Your task to perform on an android device: Go to network settings Image 0: 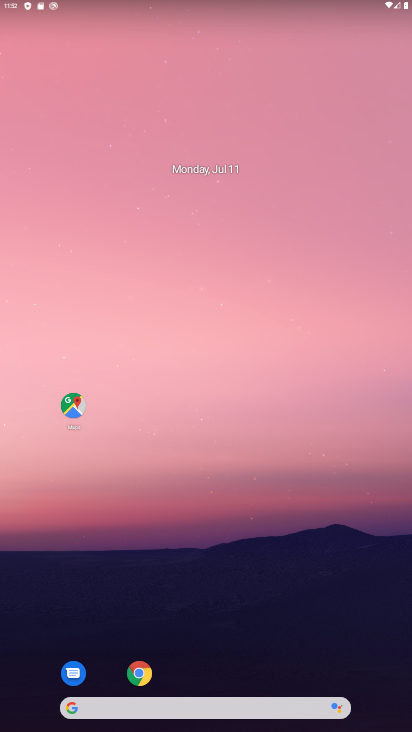
Step 0: drag from (277, 605) to (200, 141)
Your task to perform on an android device: Go to network settings Image 1: 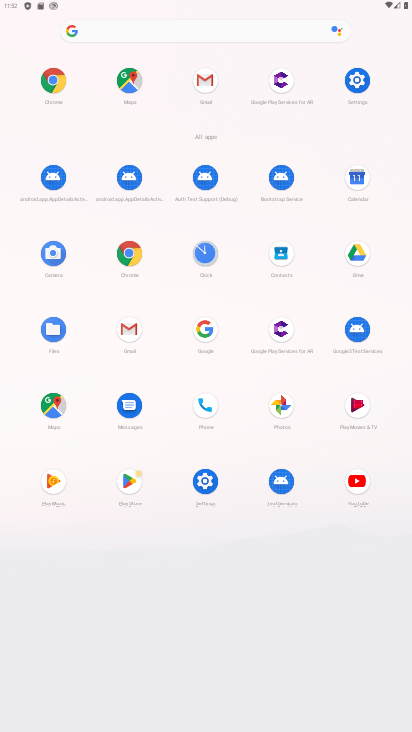
Step 1: click (358, 88)
Your task to perform on an android device: Go to network settings Image 2: 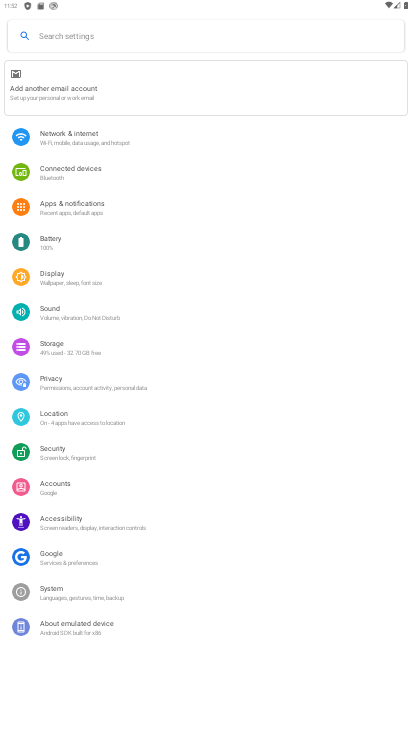
Step 2: click (158, 148)
Your task to perform on an android device: Go to network settings Image 3: 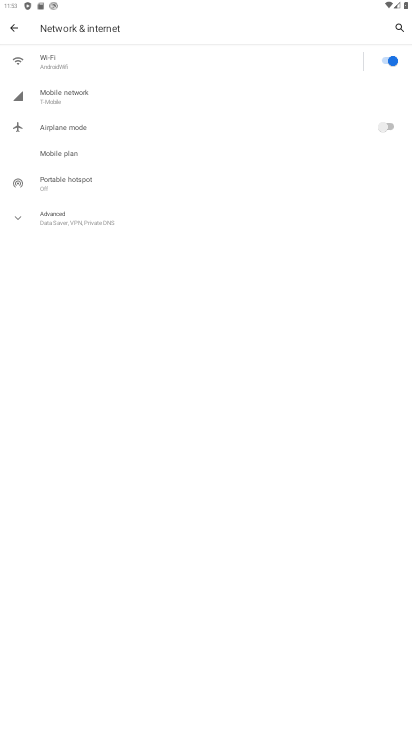
Step 3: task complete